Your task to perform on an android device: search for starred emails in the gmail app Image 0: 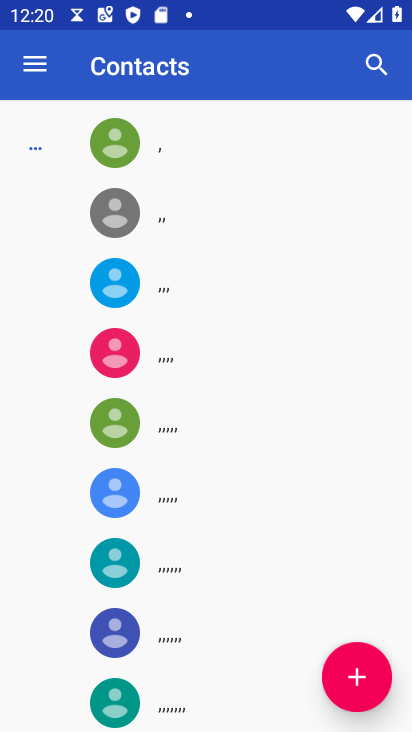
Step 0: press home button
Your task to perform on an android device: search for starred emails in the gmail app Image 1: 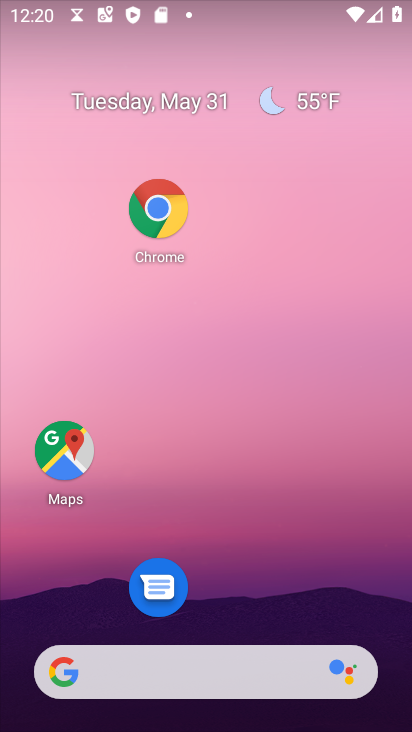
Step 1: drag from (228, 610) to (218, 60)
Your task to perform on an android device: search for starred emails in the gmail app Image 2: 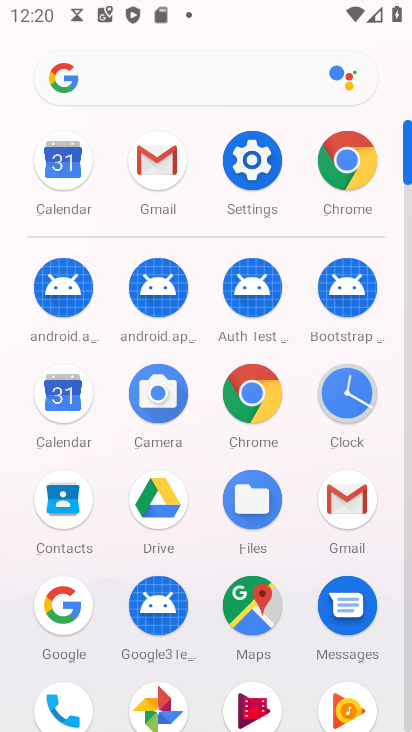
Step 2: click (182, 178)
Your task to perform on an android device: search for starred emails in the gmail app Image 3: 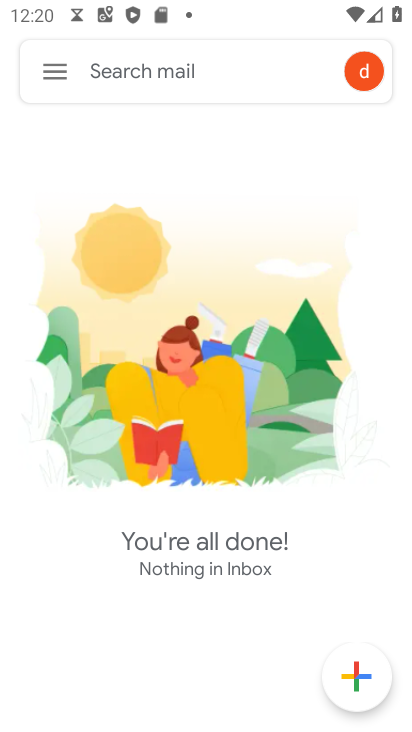
Step 3: click (44, 82)
Your task to perform on an android device: search for starred emails in the gmail app Image 4: 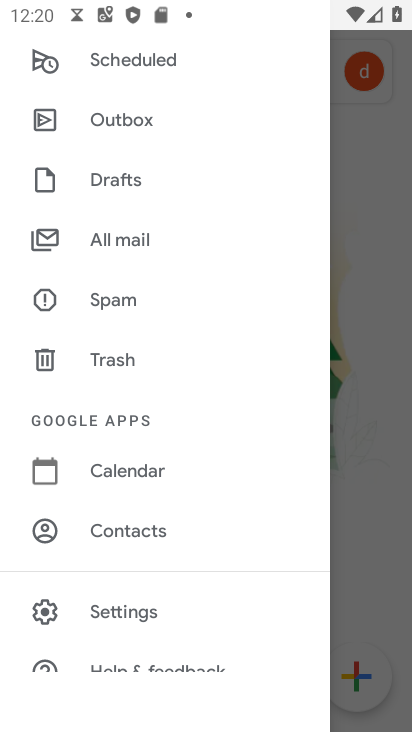
Step 4: drag from (99, 216) to (144, 702)
Your task to perform on an android device: search for starred emails in the gmail app Image 5: 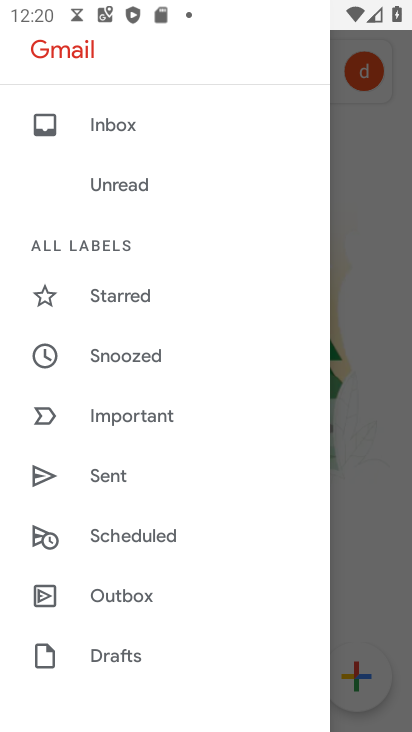
Step 5: click (110, 113)
Your task to perform on an android device: search for starred emails in the gmail app Image 6: 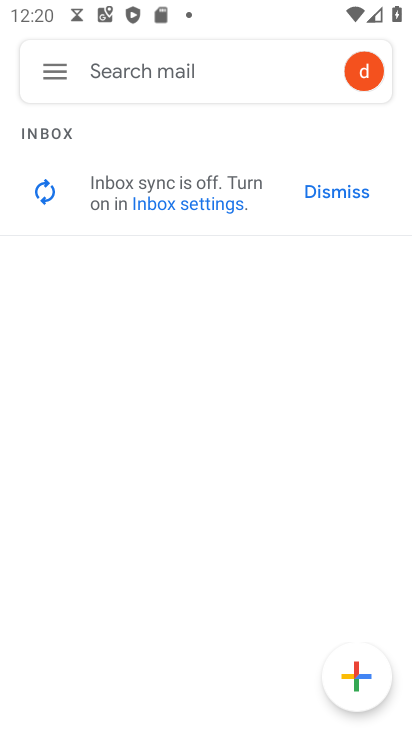
Step 6: click (110, 113)
Your task to perform on an android device: search for starred emails in the gmail app Image 7: 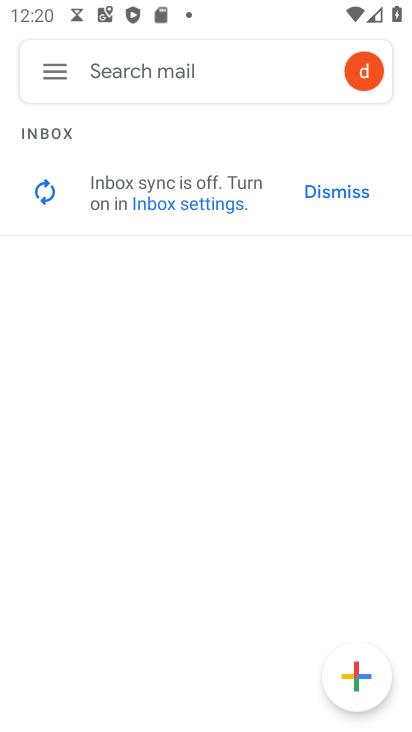
Step 7: task complete